Your task to perform on an android device: Do I have any events today? Image 0: 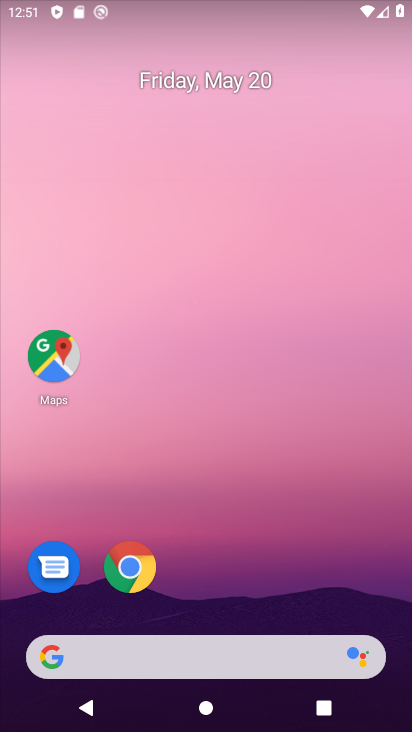
Step 0: drag from (255, 488) to (200, 99)
Your task to perform on an android device: Do I have any events today? Image 1: 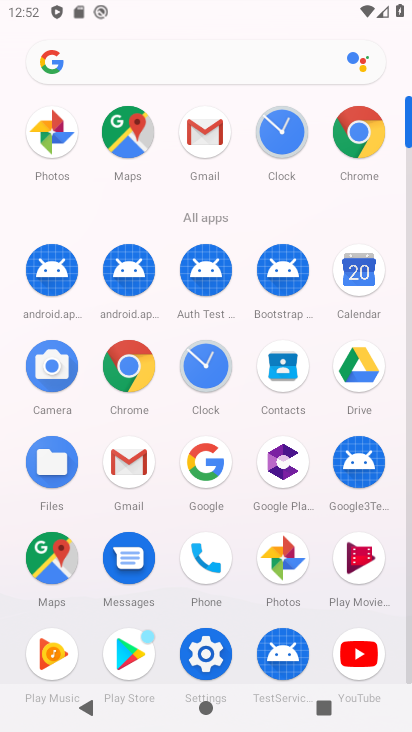
Step 1: click (356, 265)
Your task to perform on an android device: Do I have any events today? Image 2: 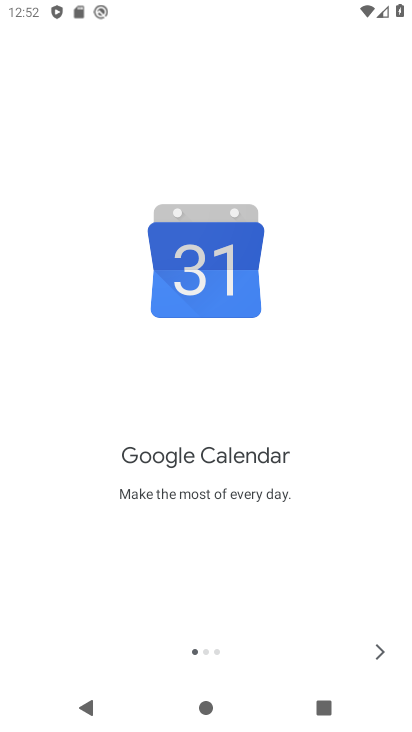
Step 2: click (380, 641)
Your task to perform on an android device: Do I have any events today? Image 3: 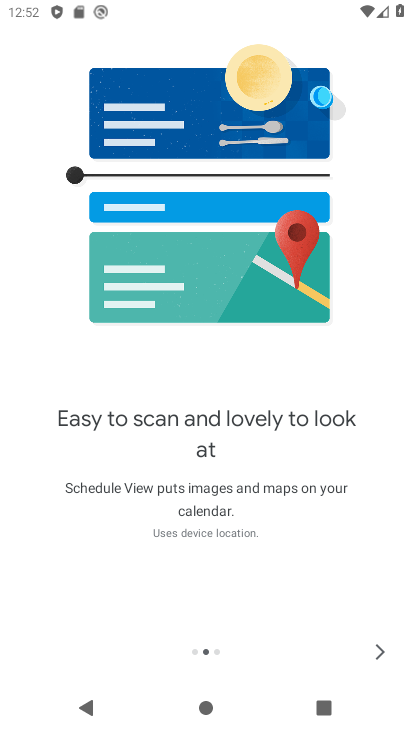
Step 3: click (380, 641)
Your task to perform on an android device: Do I have any events today? Image 4: 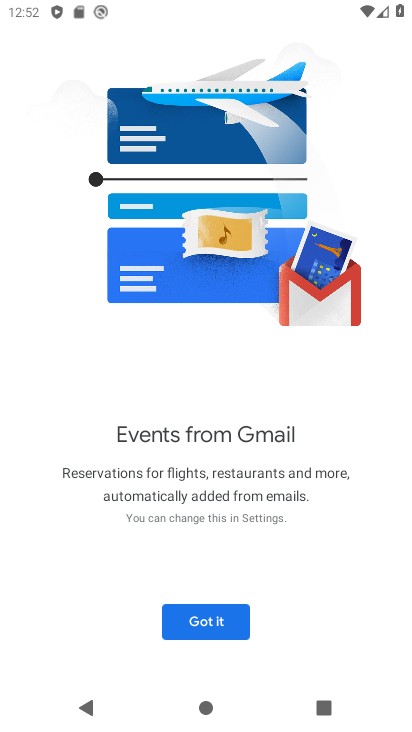
Step 4: click (196, 628)
Your task to perform on an android device: Do I have any events today? Image 5: 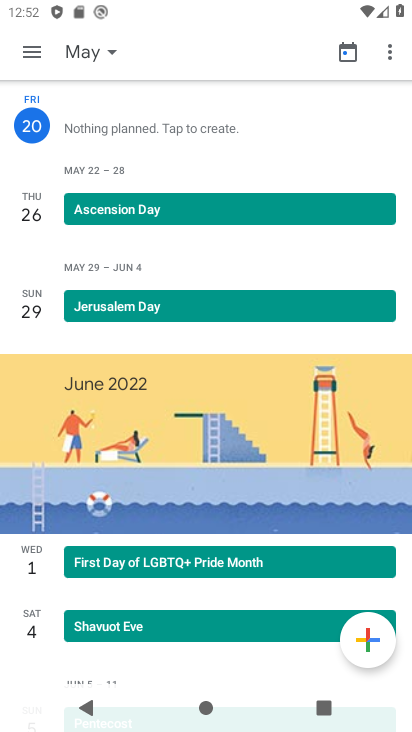
Step 5: click (95, 52)
Your task to perform on an android device: Do I have any events today? Image 6: 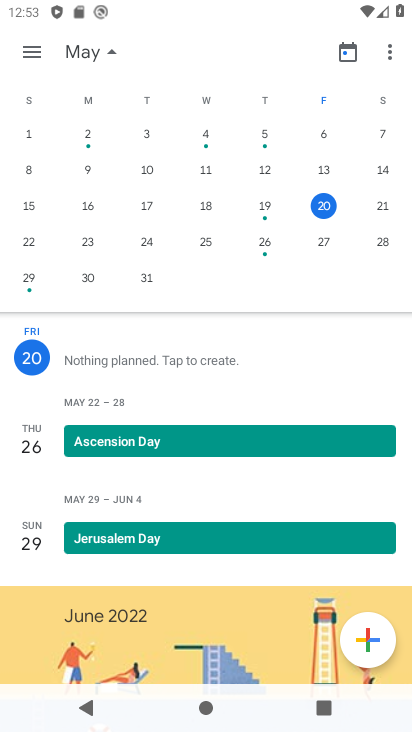
Step 6: click (96, 55)
Your task to perform on an android device: Do I have any events today? Image 7: 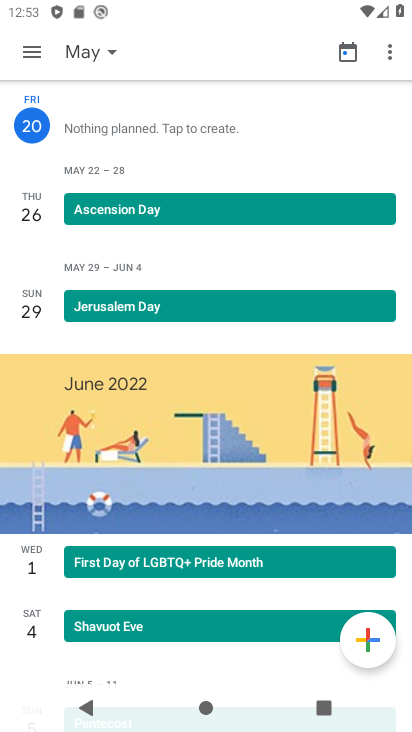
Step 7: task complete